Your task to perform on an android device: change the clock style Image 0: 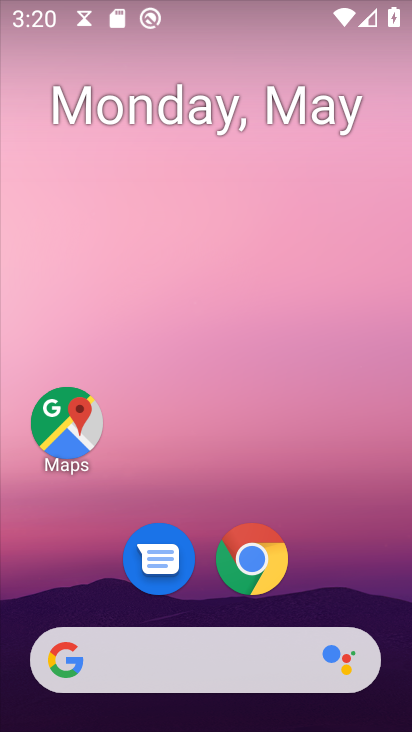
Step 0: drag from (304, 593) to (348, 271)
Your task to perform on an android device: change the clock style Image 1: 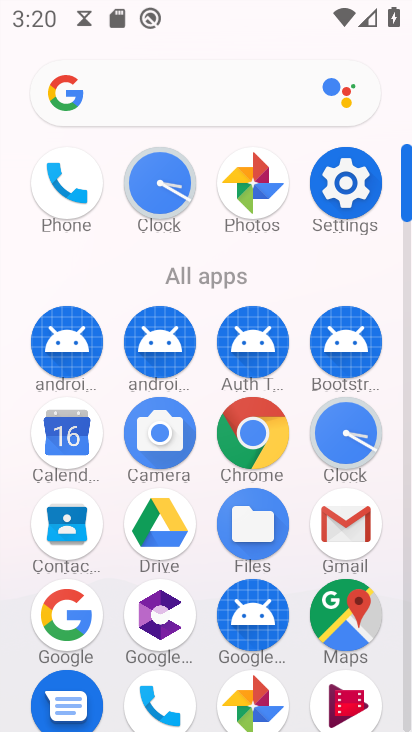
Step 1: click (337, 423)
Your task to perform on an android device: change the clock style Image 2: 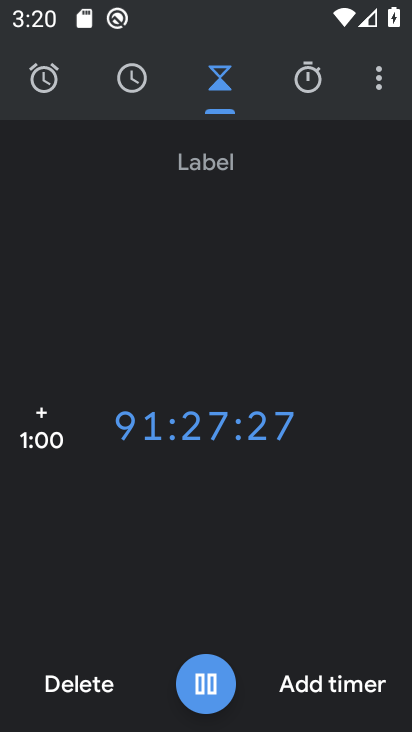
Step 2: click (380, 81)
Your task to perform on an android device: change the clock style Image 3: 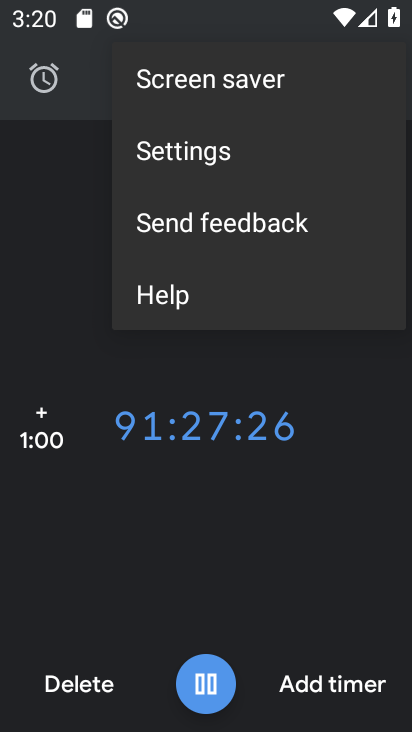
Step 3: click (184, 150)
Your task to perform on an android device: change the clock style Image 4: 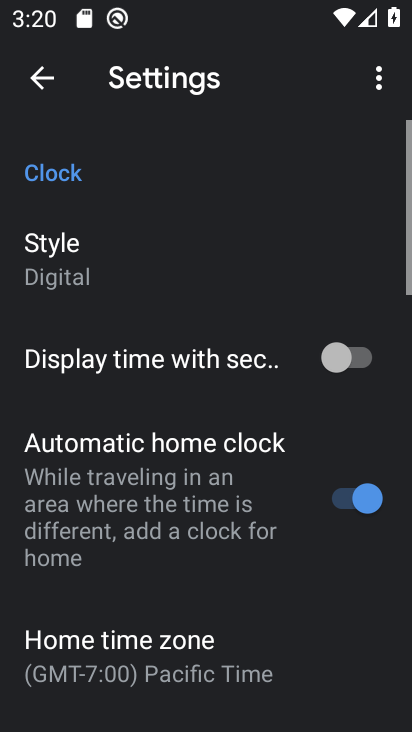
Step 4: click (85, 261)
Your task to perform on an android device: change the clock style Image 5: 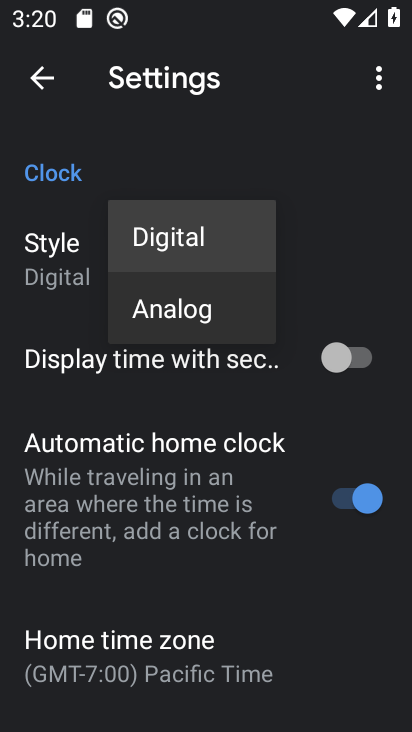
Step 5: click (178, 298)
Your task to perform on an android device: change the clock style Image 6: 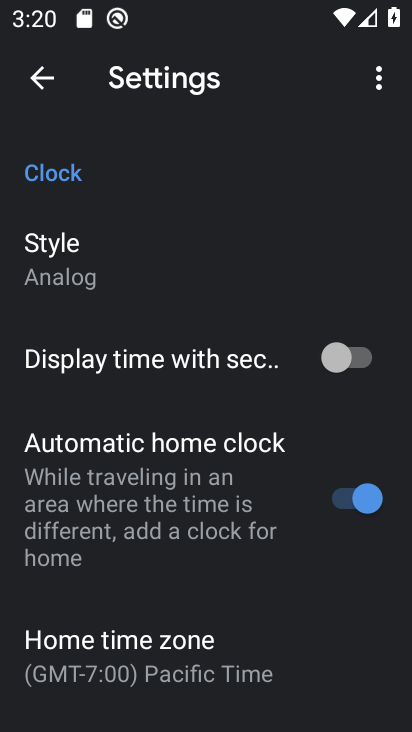
Step 6: task complete